Your task to perform on an android device: toggle pop-ups in chrome Image 0: 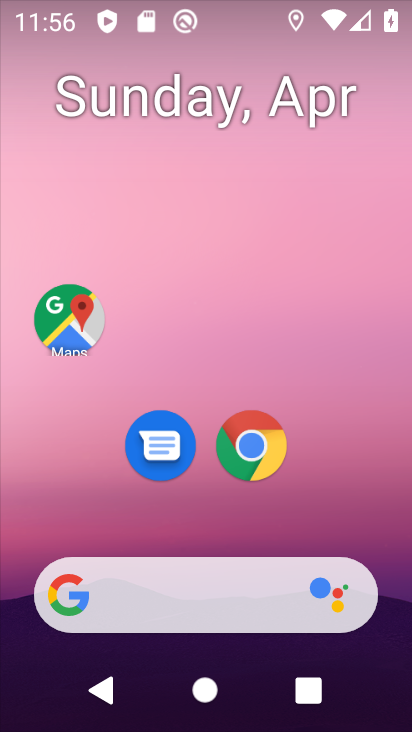
Step 0: drag from (358, 518) to (235, 278)
Your task to perform on an android device: toggle pop-ups in chrome Image 1: 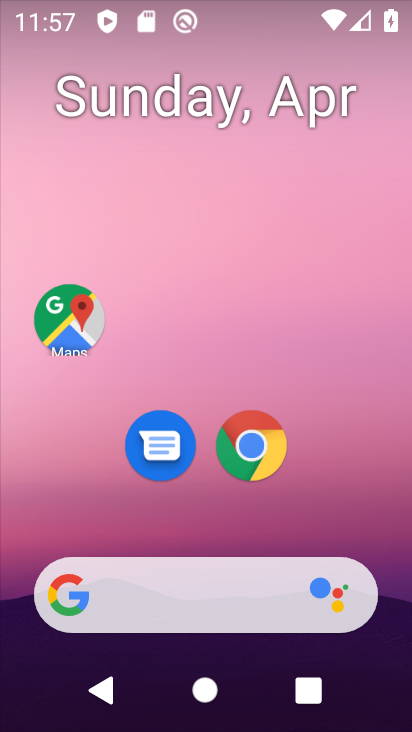
Step 1: click (266, 456)
Your task to perform on an android device: toggle pop-ups in chrome Image 2: 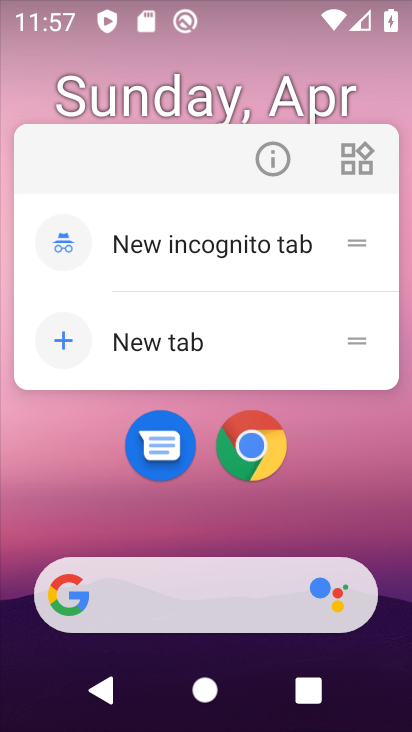
Step 2: click (259, 449)
Your task to perform on an android device: toggle pop-ups in chrome Image 3: 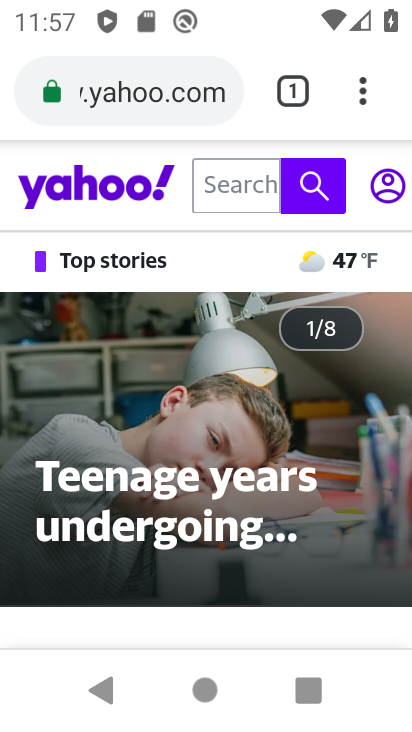
Step 3: click (357, 118)
Your task to perform on an android device: toggle pop-ups in chrome Image 4: 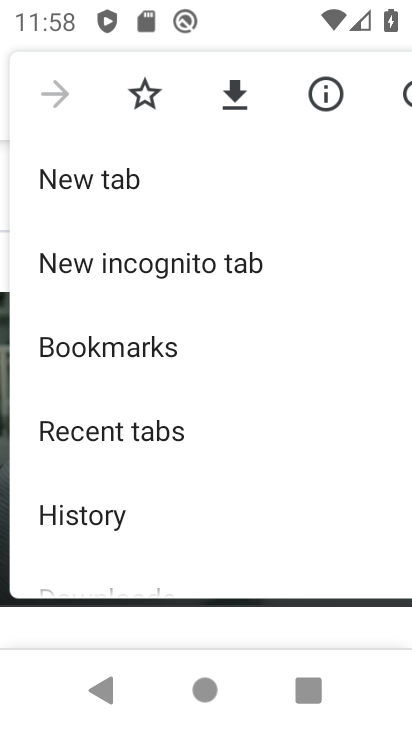
Step 4: drag from (242, 540) to (171, 53)
Your task to perform on an android device: toggle pop-ups in chrome Image 5: 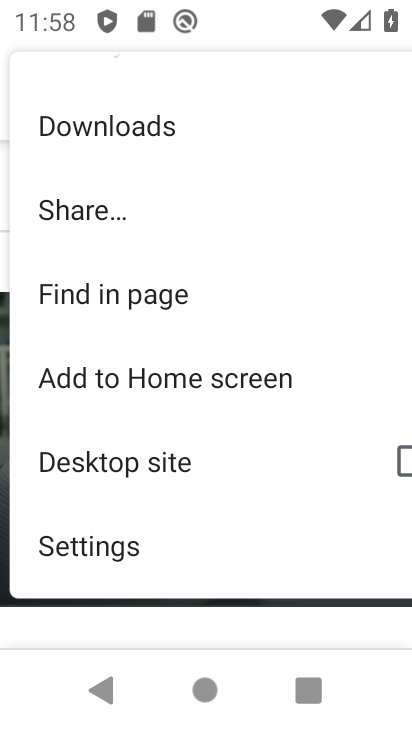
Step 5: click (119, 545)
Your task to perform on an android device: toggle pop-ups in chrome Image 6: 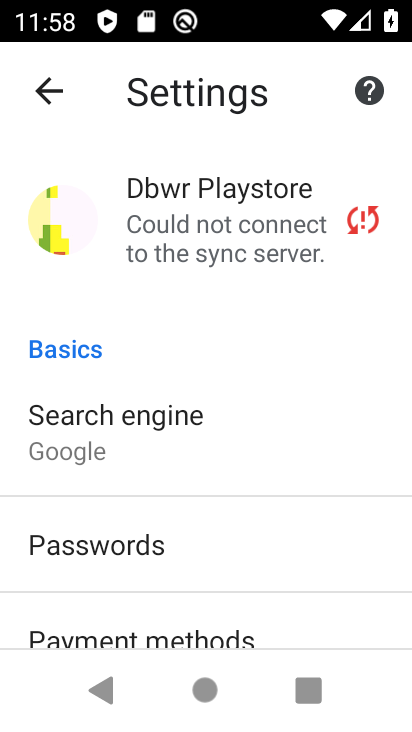
Step 6: drag from (241, 550) to (183, 191)
Your task to perform on an android device: toggle pop-ups in chrome Image 7: 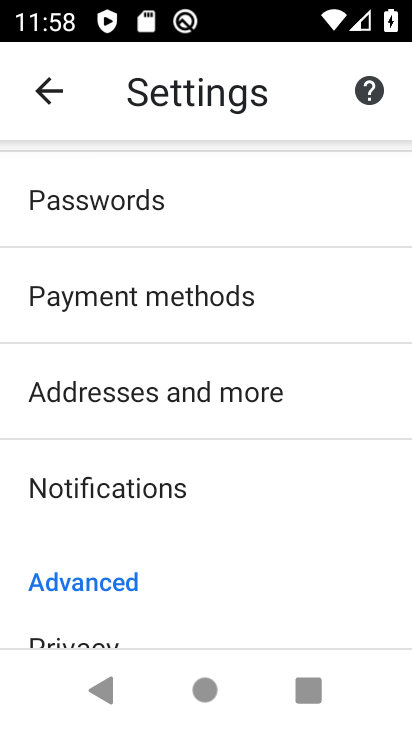
Step 7: drag from (205, 605) to (184, 220)
Your task to perform on an android device: toggle pop-ups in chrome Image 8: 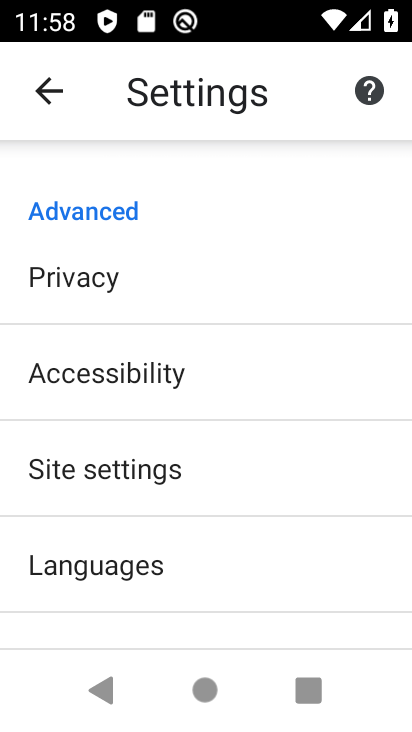
Step 8: click (137, 462)
Your task to perform on an android device: toggle pop-ups in chrome Image 9: 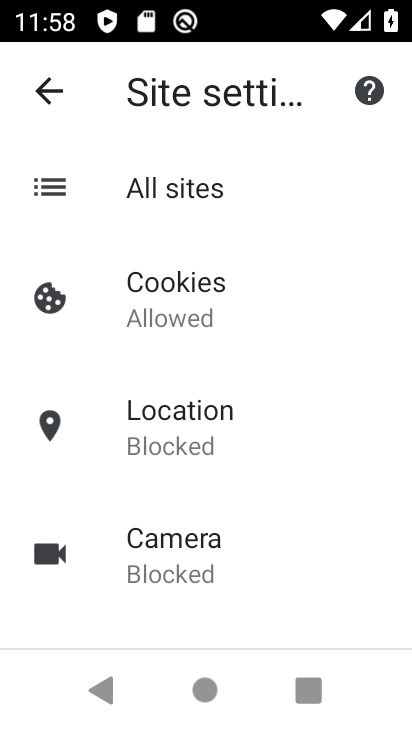
Step 9: drag from (205, 606) to (163, 77)
Your task to perform on an android device: toggle pop-ups in chrome Image 10: 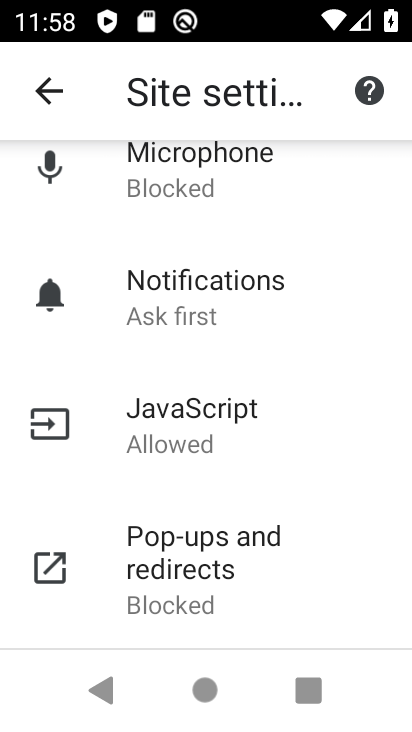
Step 10: click (205, 539)
Your task to perform on an android device: toggle pop-ups in chrome Image 11: 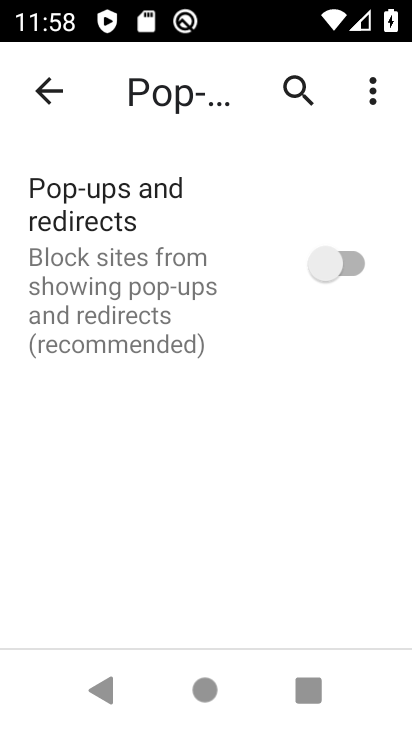
Step 11: click (324, 268)
Your task to perform on an android device: toggle pop-ups in chrome Image 12: 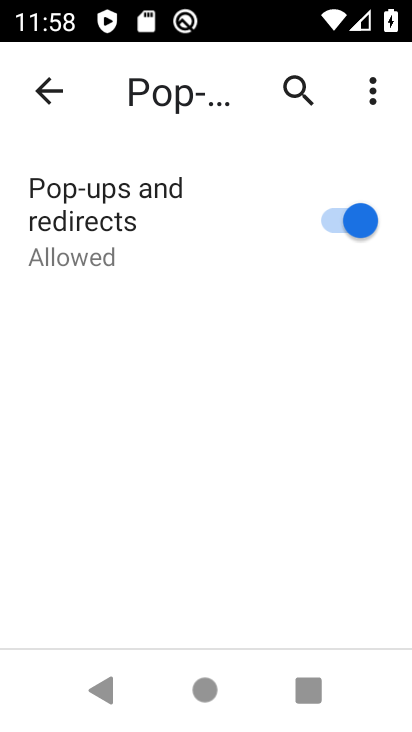
Step 12: task complete